Your task to perform on an android device: toggle show notifications on the lock screen Image 0: 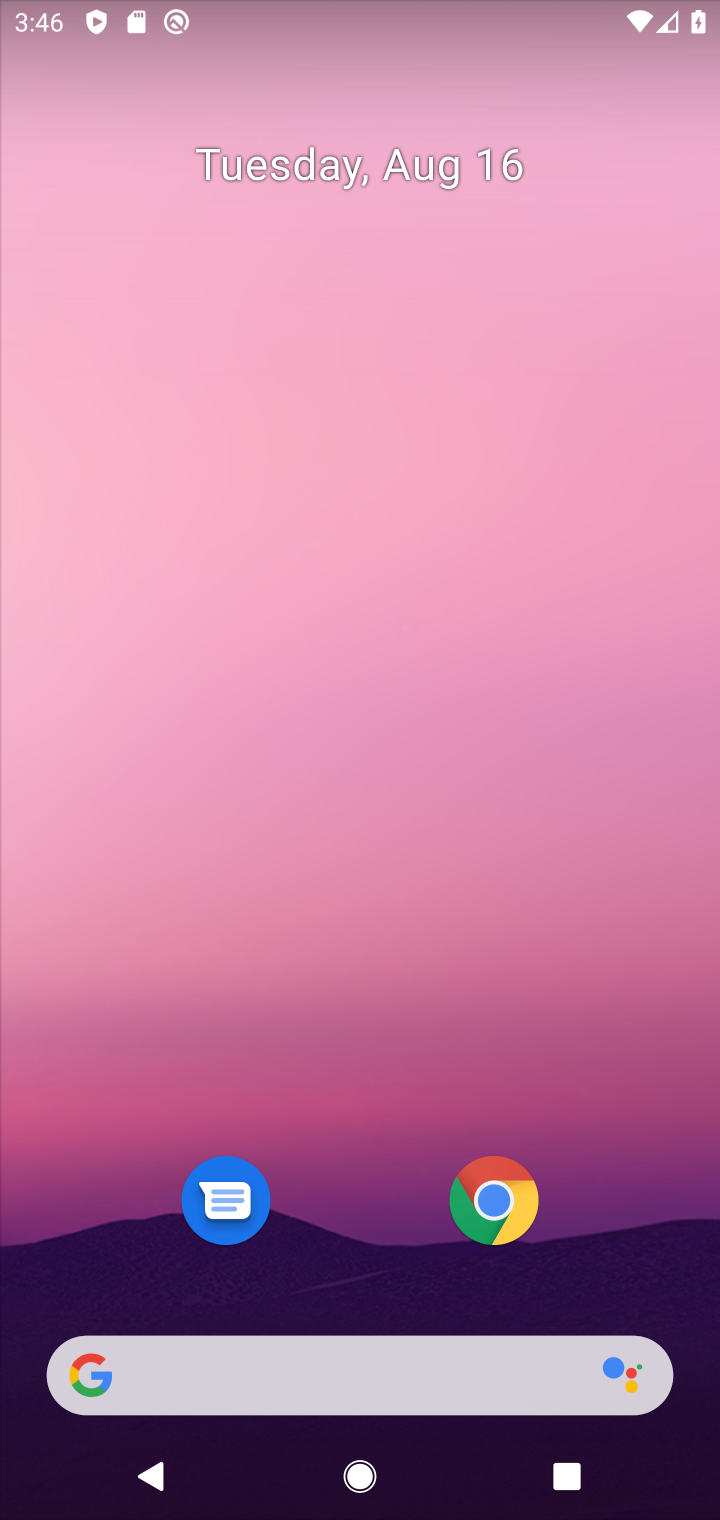
Step 0: press home button
Your task to perform on an android device: toggle show notifications on the lock screen Image 1: 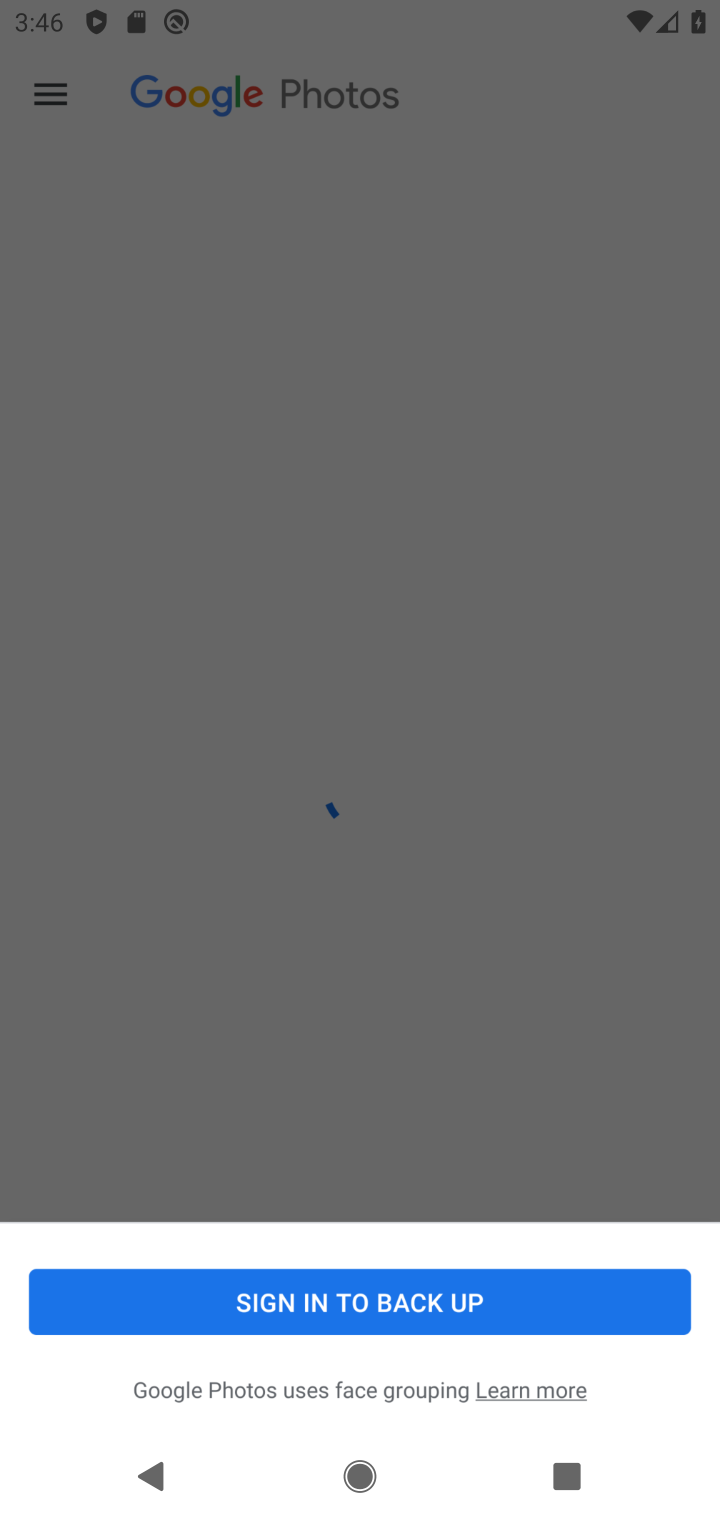
Step 1: click (412, 227)
Your task to perform on an android device: toggle show notifications on the lock screen Image 2: 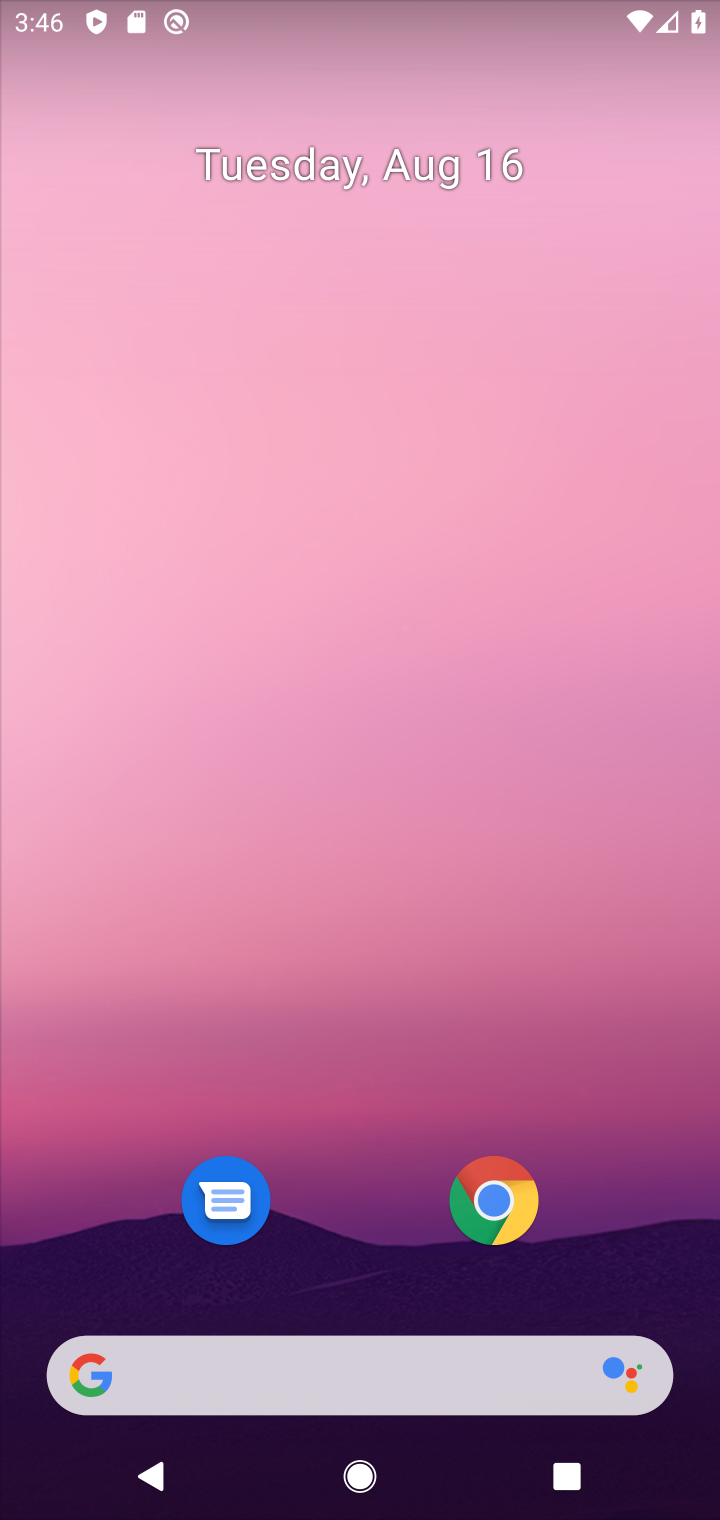
Step 2: drag from (370, 1272) to (327, 156)
Your task to perform on an android device: toggle show notifications on the lock screen Image 3: 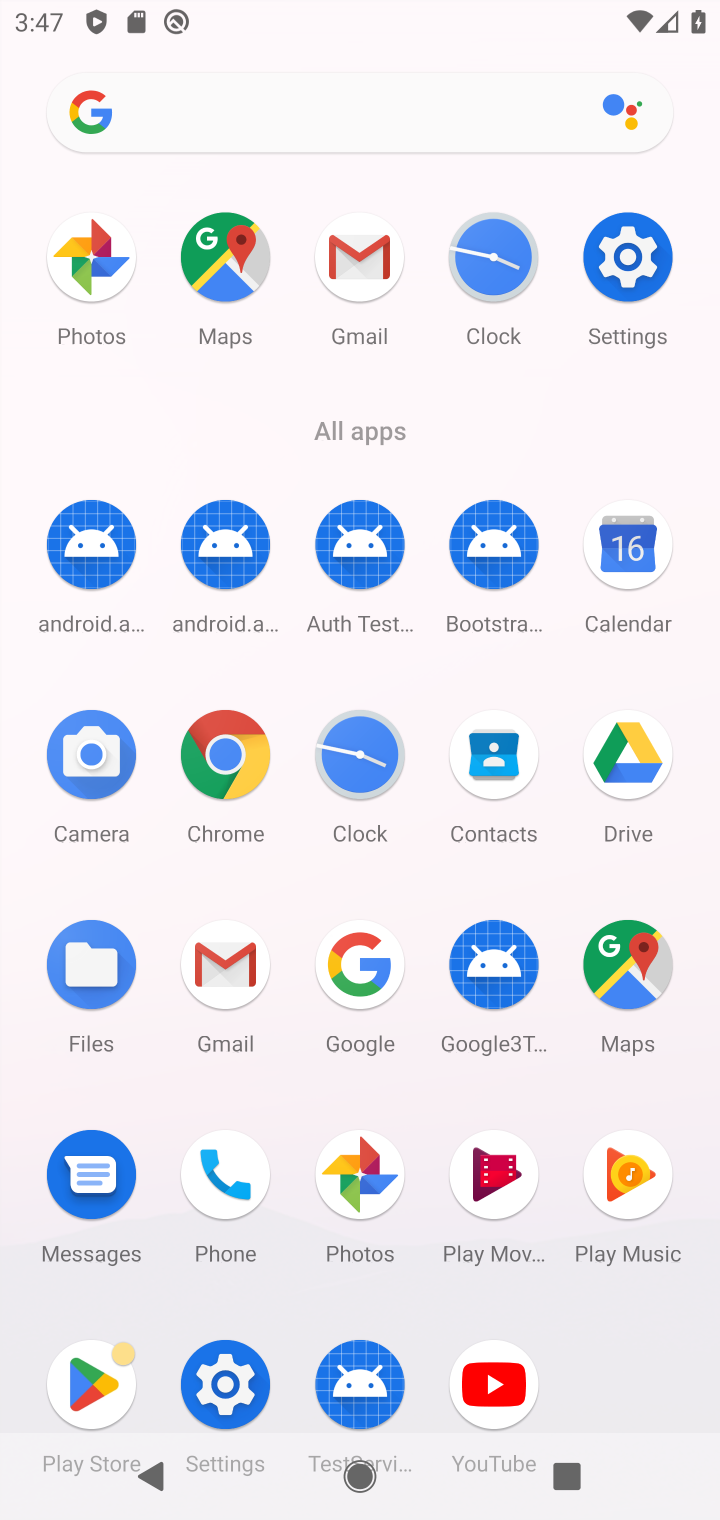
Step 3: click (634, 270)
Your task to perform on an android device: toggle show notifications on the lock screen Image 4: 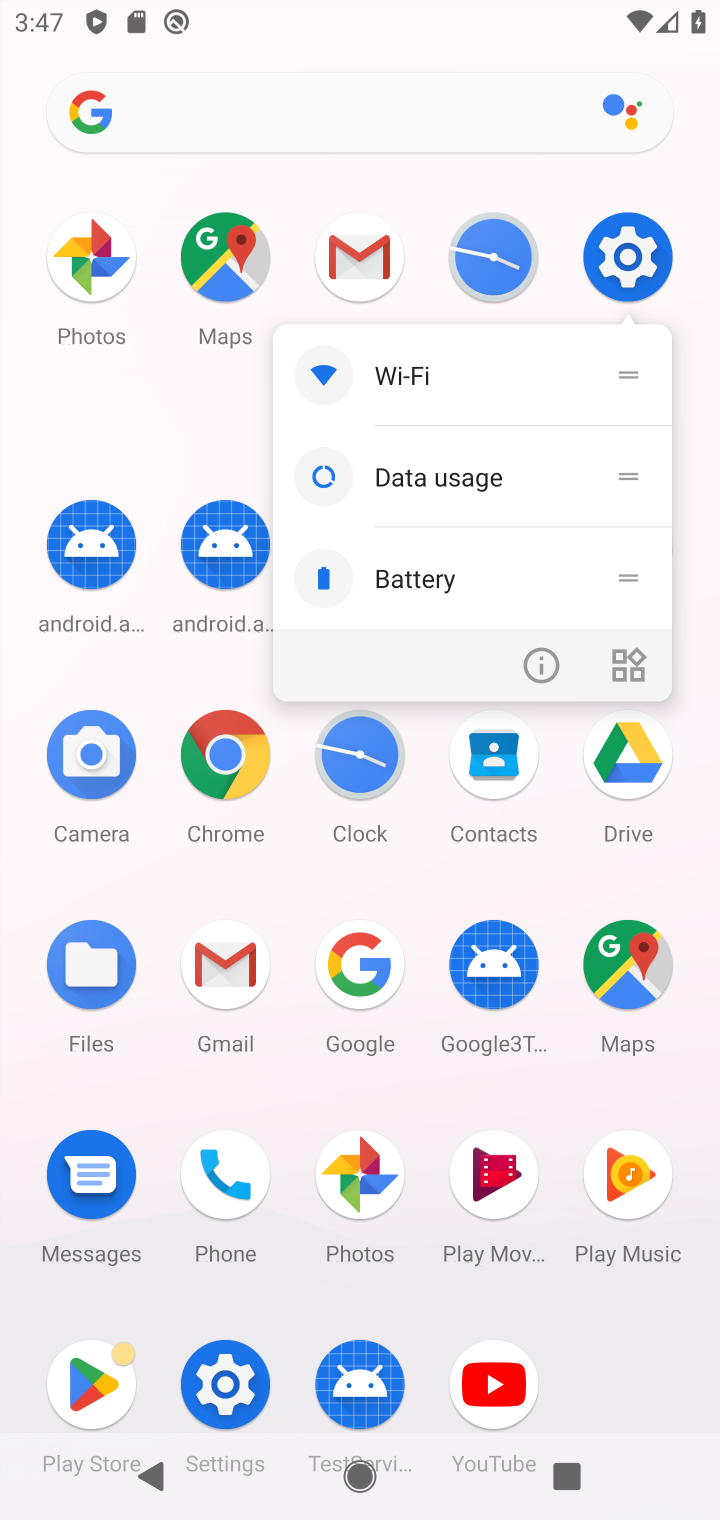
Step 4: click (632, 251)
Your task to perform on an android device: toggle show notifications on the lock screen Image 5: 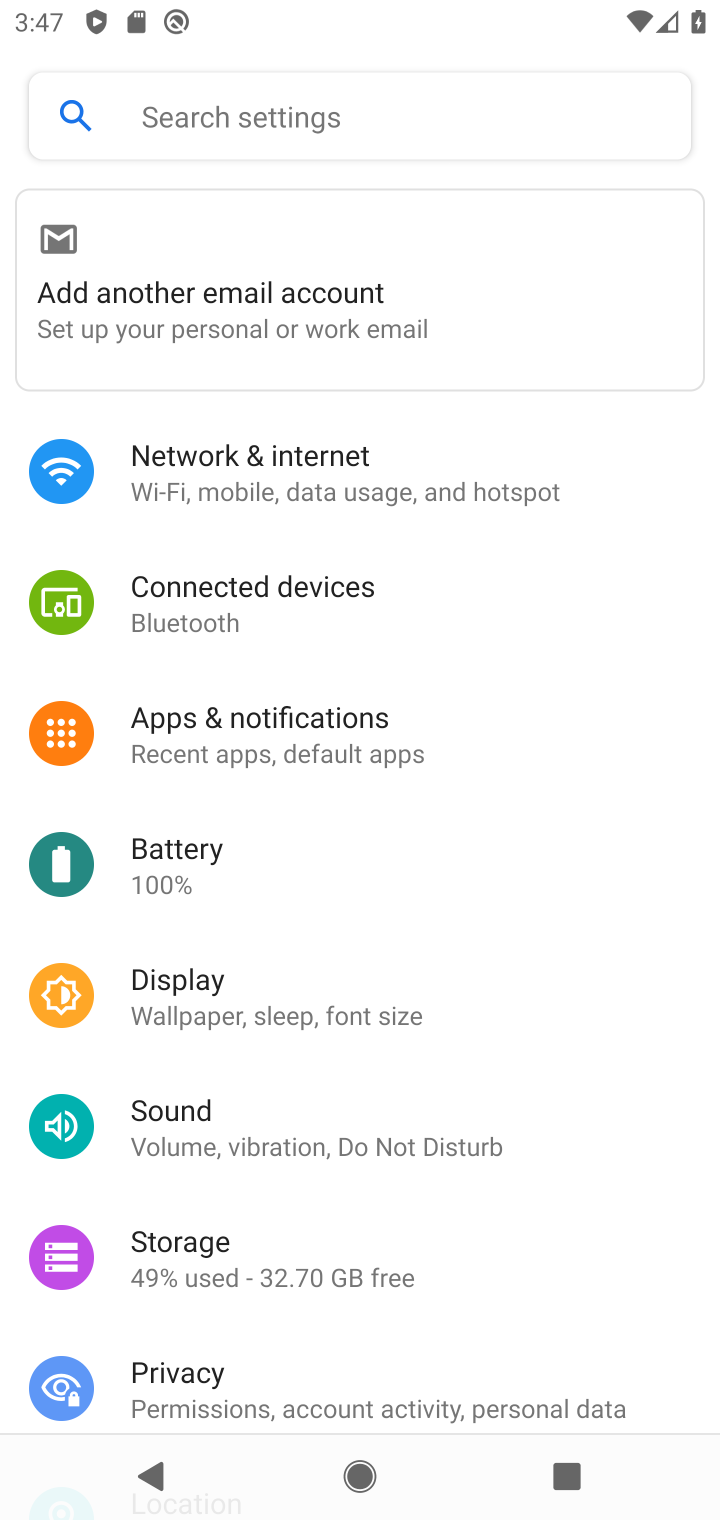
Step 5: click (297, 539)
Your task to perform on an android device: toggle show notifications on the lock screen Image 6: 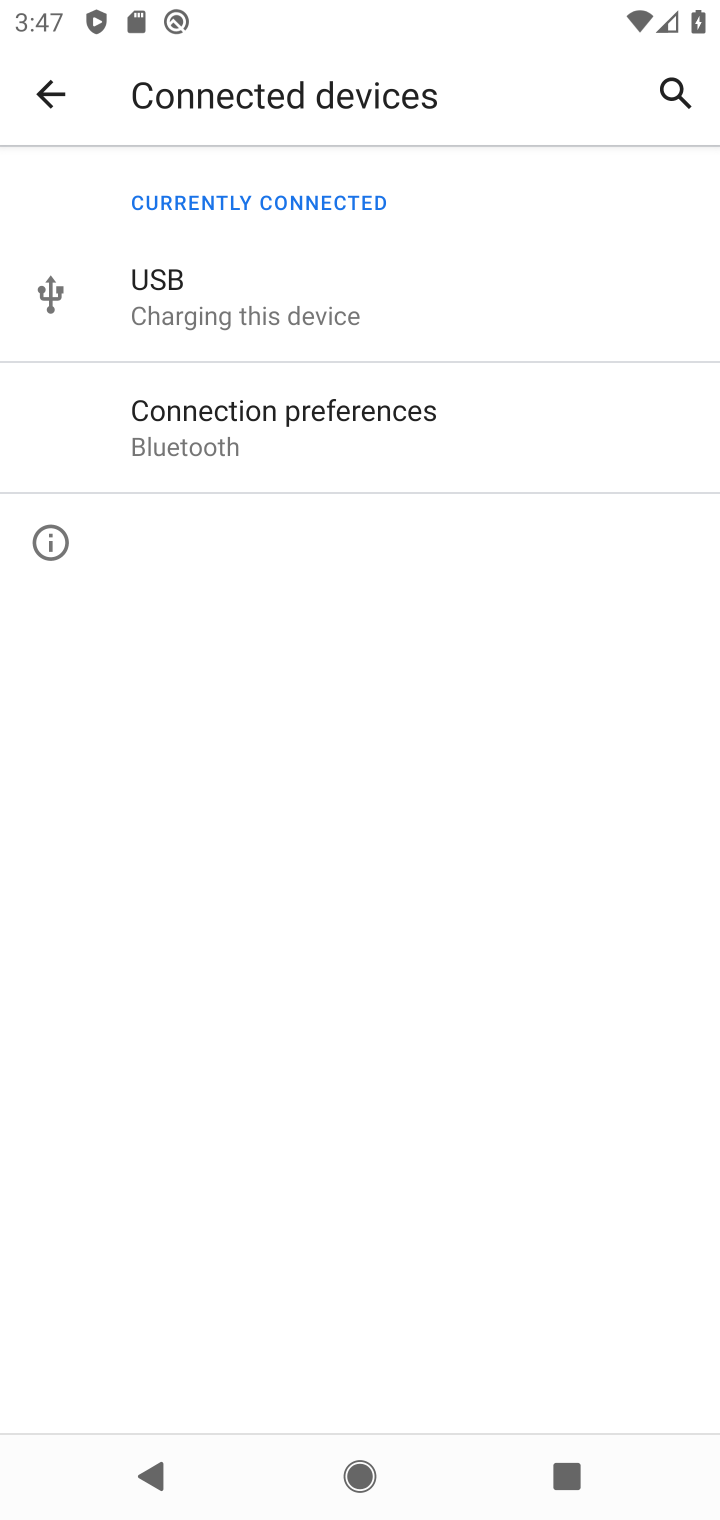
Step 6: click (347, 749)
Your task to perform on an android device: toggle show notifications on the lock screen Image 7: 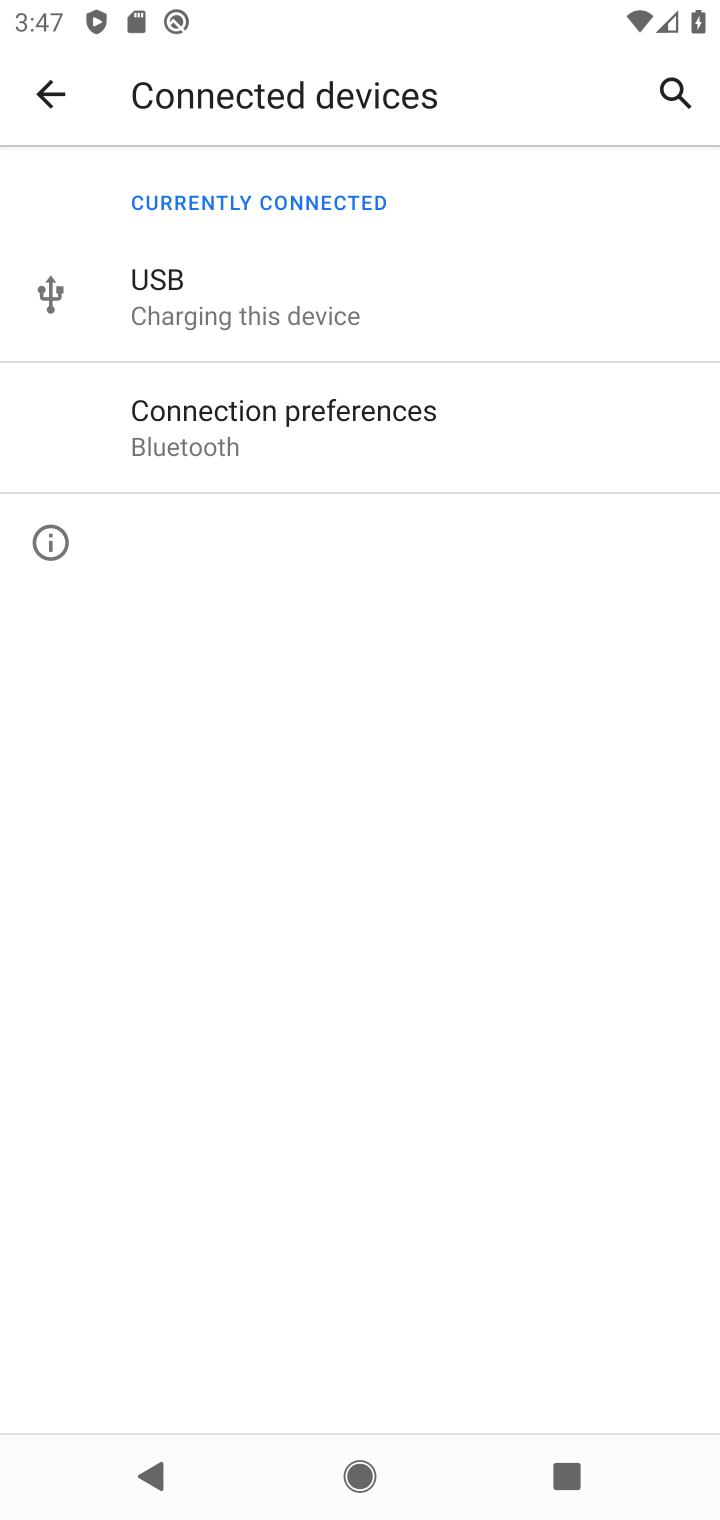
Step 7: click (347, 749)
Your task to perform on an android device: toggle show notifications on the lock screen Image 8: 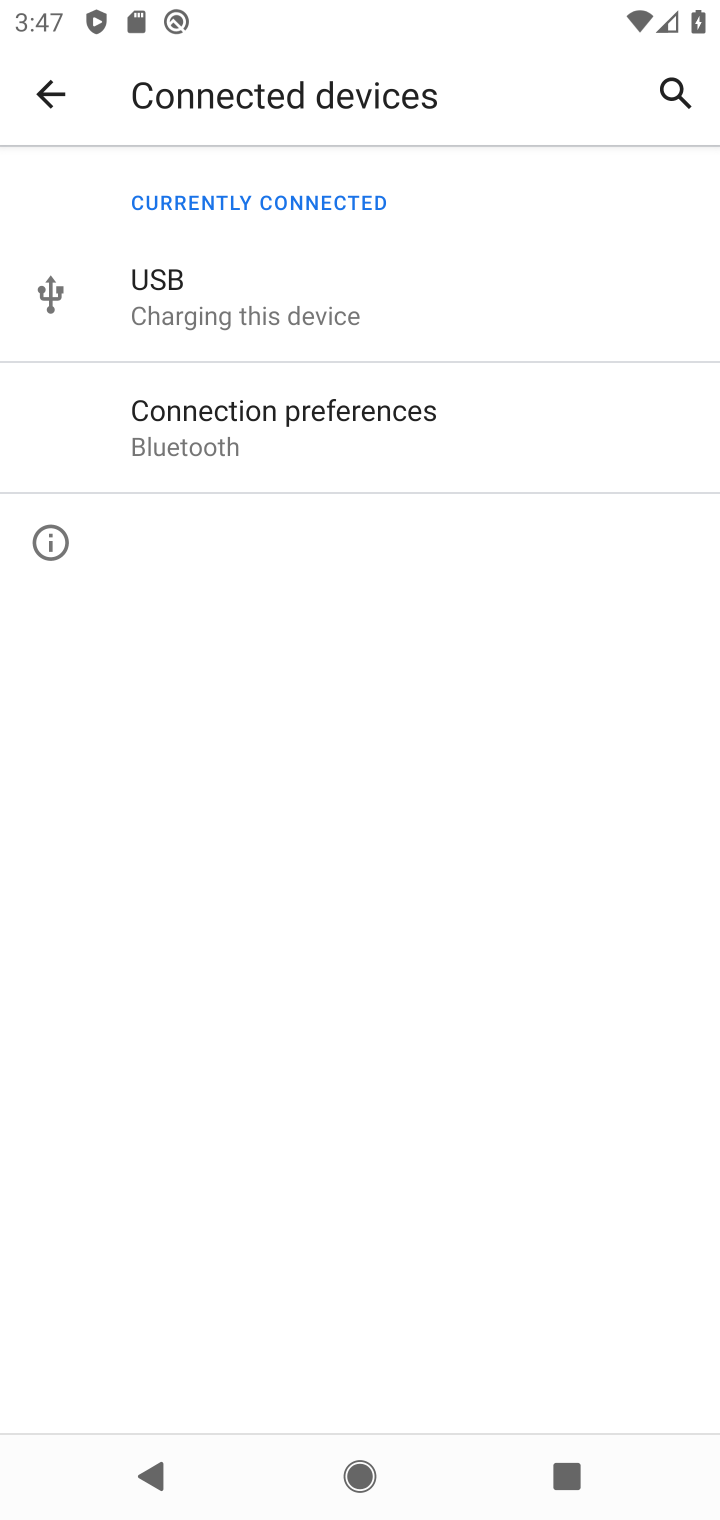
Step 8: click (347, 749)
Your task to perform on an android device: toggle show notifications on the lock screen Image 9: 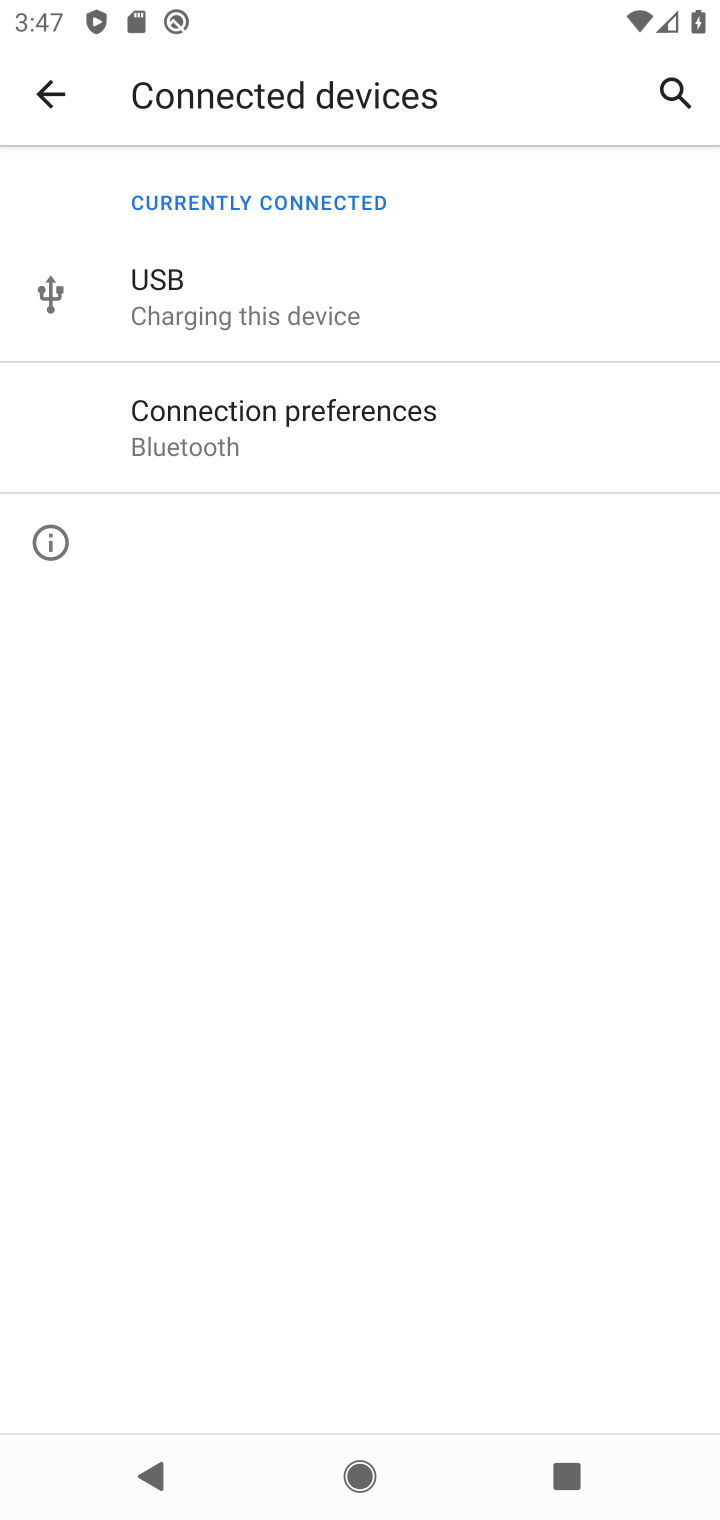
Step 9: click (63, 117)
Your task to perform on an android device: toggle show notifications on the lock screen Image 10: 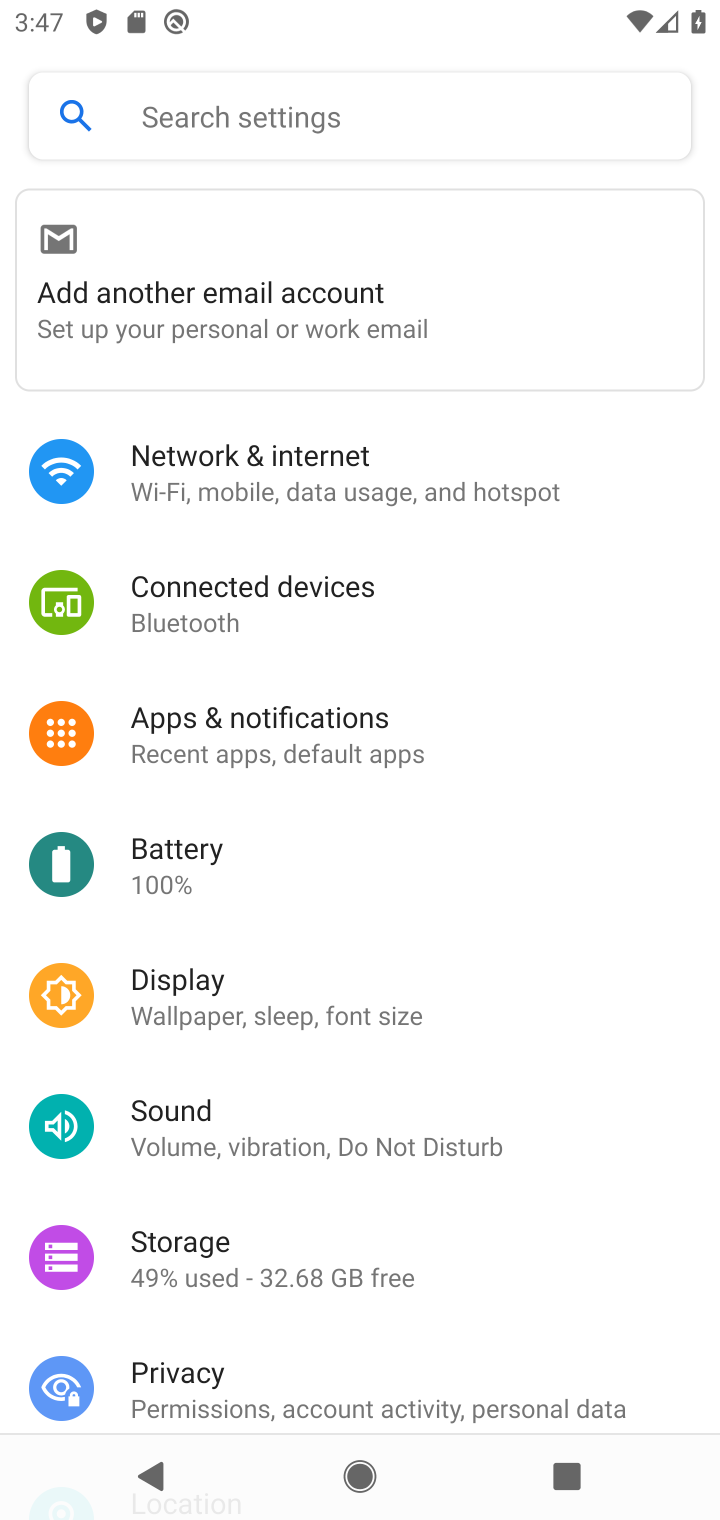
Step 10: click (435, 696)
Your task to perform on an android device: toggle show notifications on the lock screen Image 11: 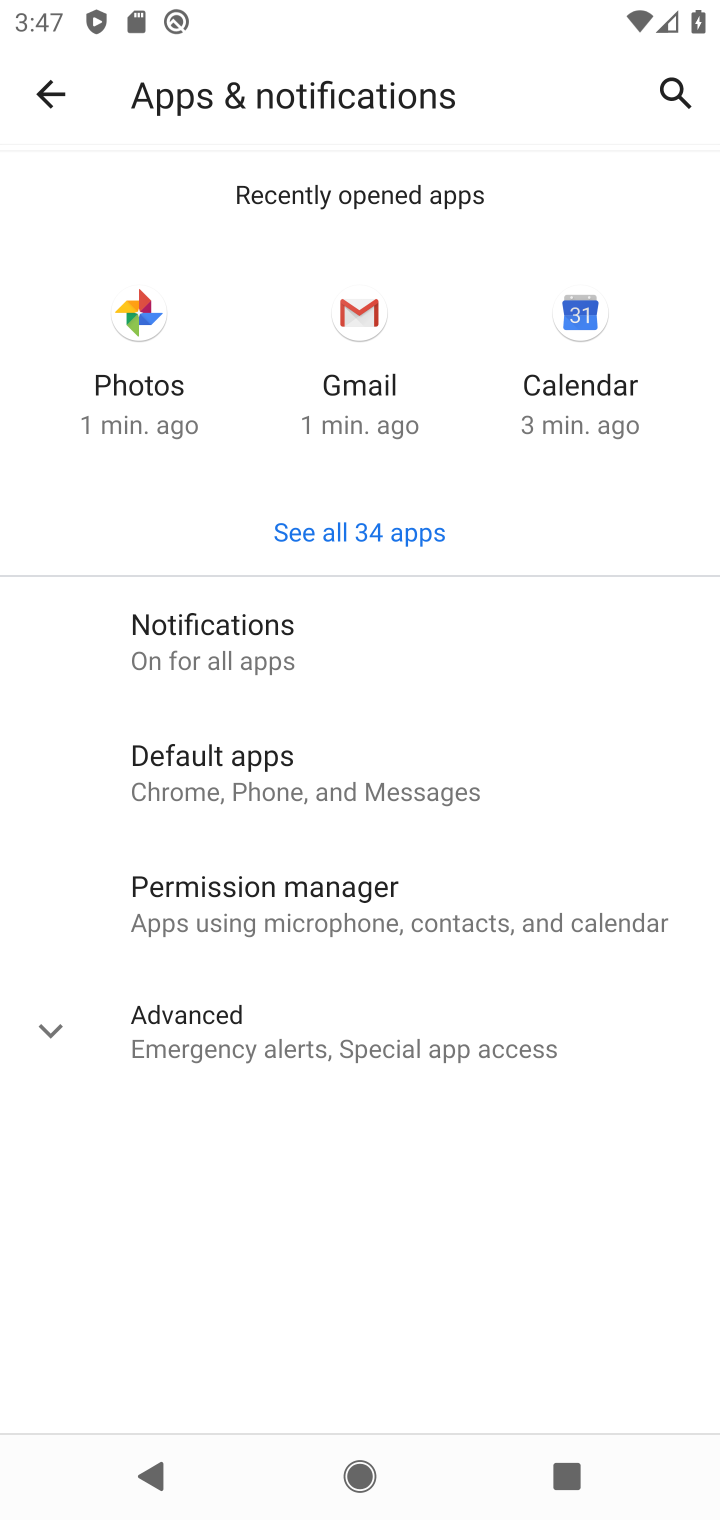
Step 11: click (304, 630)
Your task to perform on an android device: toggle show notifications on the lock screen Image 12: 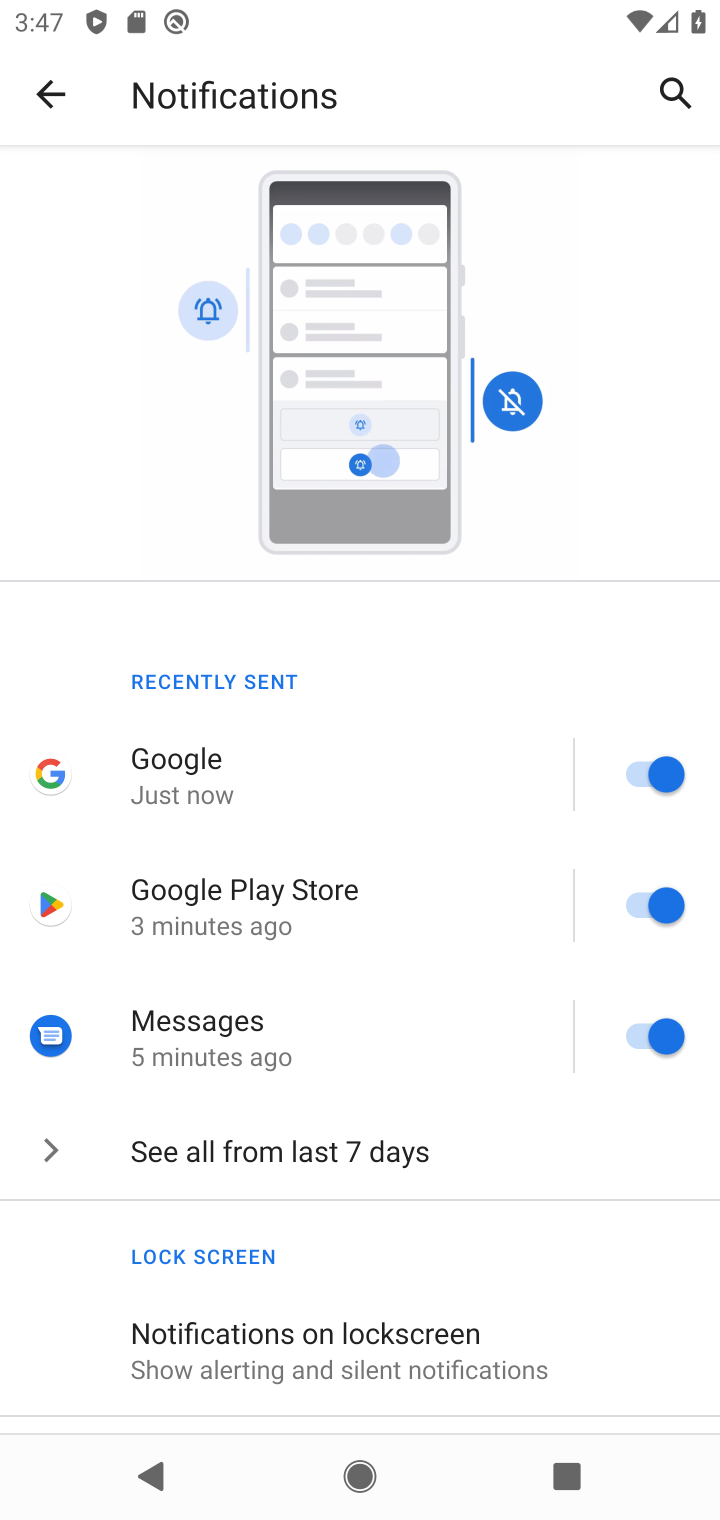
Step 12: click (434, 1383)
Your task to perform on an android device: toggle show notifications on the lock screen Image 13: 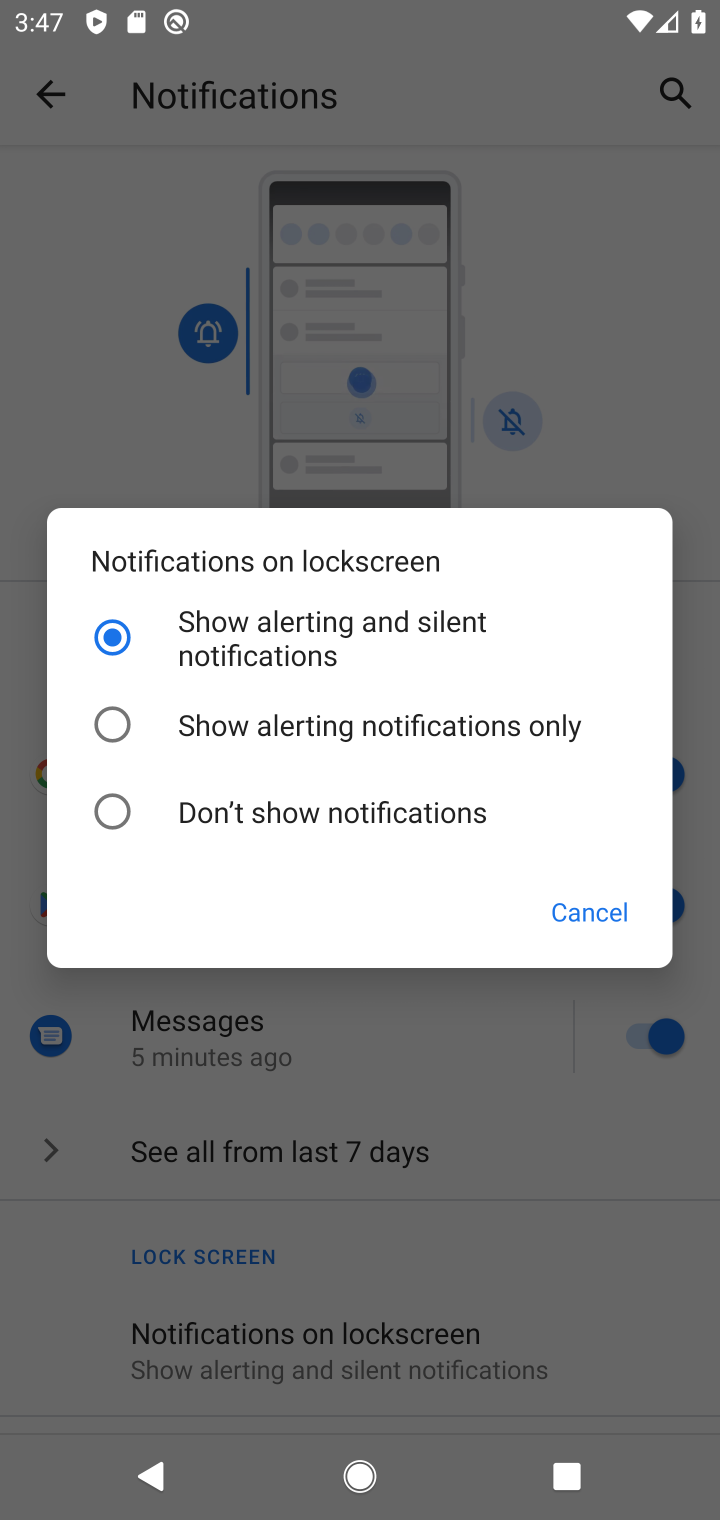
Step 13: click (286, 744)
Your task to perform on an android device: toggle show notifications on the lock screen Image 14: 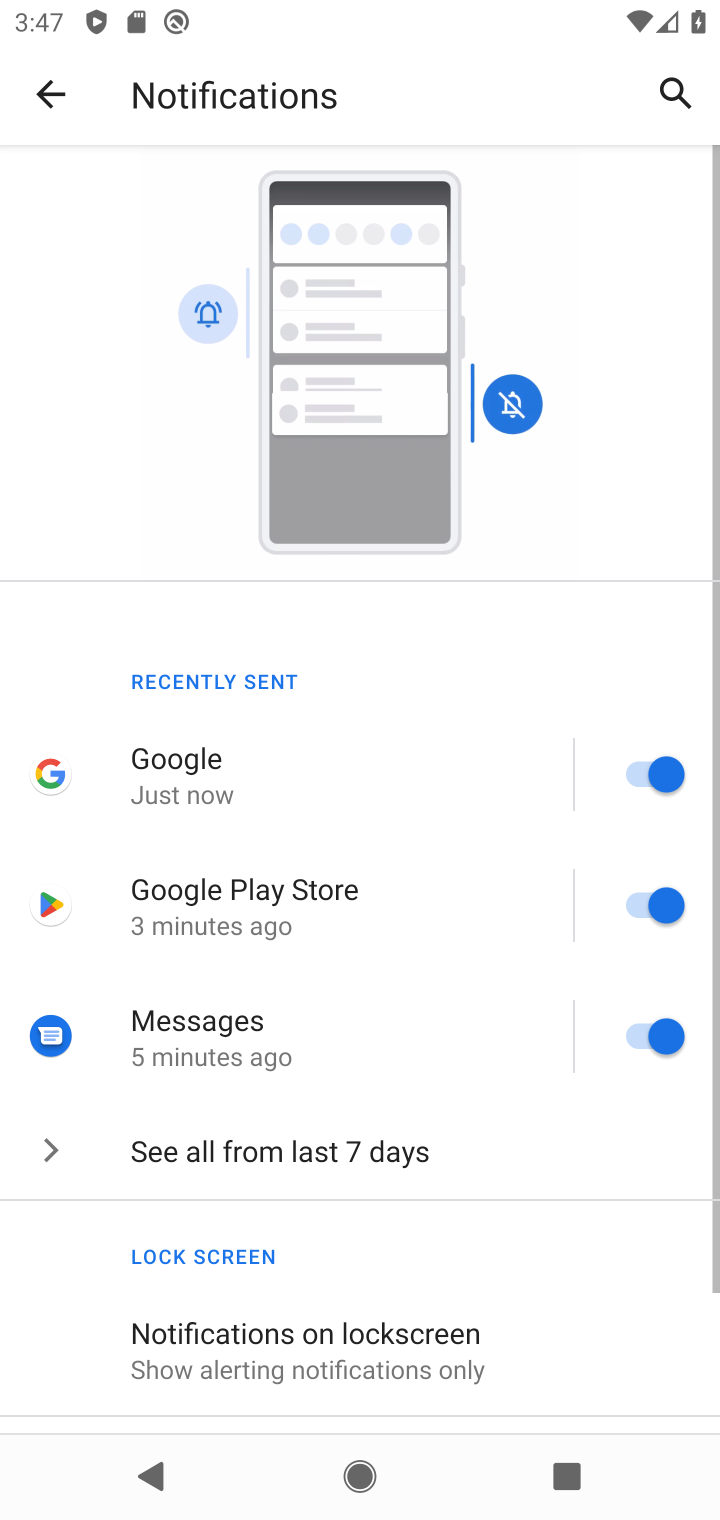
Step 14: task complete